Your task to perform on an android device: turn vacation reply on in the gmail app Image 0: 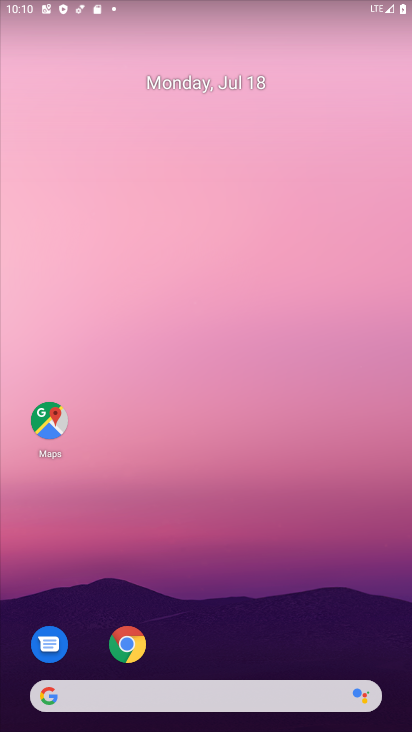
Step 0: drag from (347, 594) to (337, 140)
Your task to perform on an android device: turn vacation reply on in the gmail app Image 1: 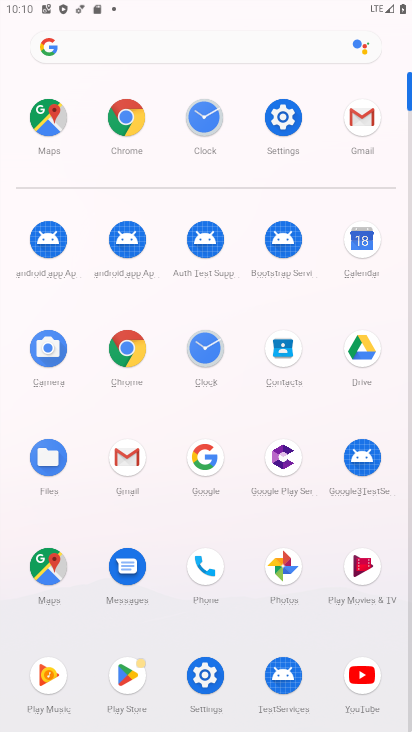
Step 1: click (127, 457)
Your task to perform on an android device: turn vacation reply on in the gmail app Image 2: 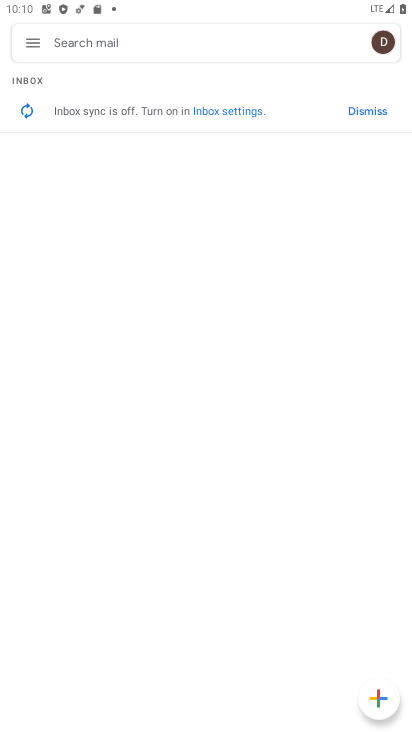
Step 2: click (33, 49)
Your task to perform on an android device: turn vacation reply on in the gmail app Image 3: 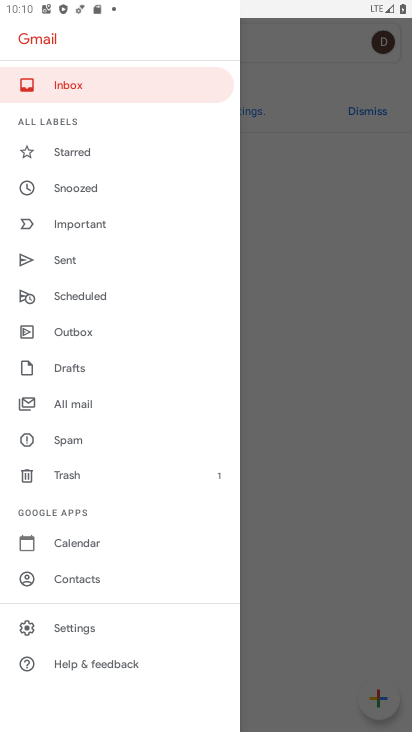
Step 3: click (167, 630)
Your task to perform on an android device: turn vacation reply on in the gmail app Image 4: 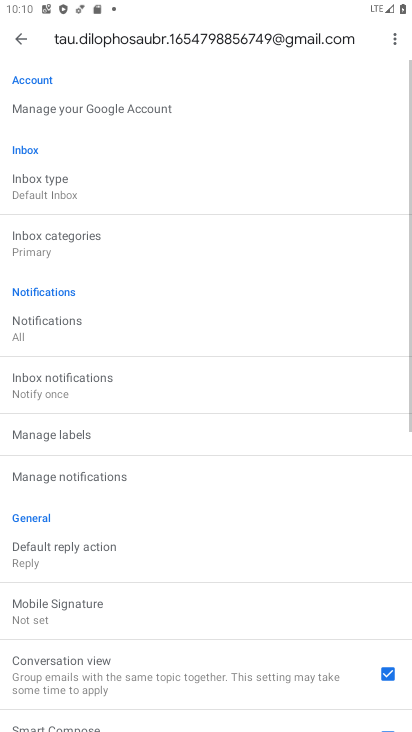
Step 4: drag from (235, 398) to (246, 348)
Your task to perform on an android device: turn vacation reply on in the gmail app Image 5: 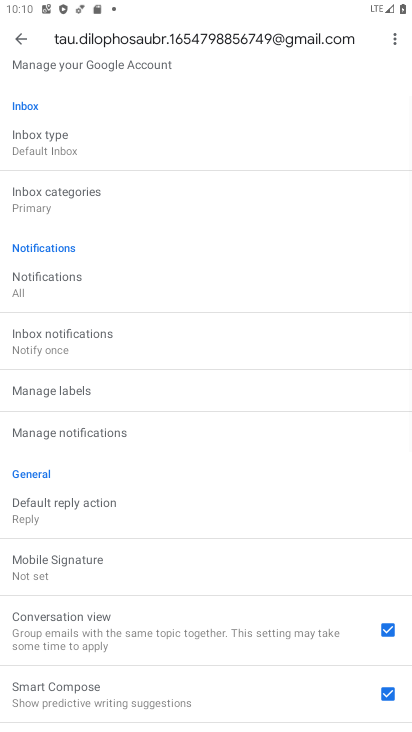
Step 5: drag from (252, 407) to (270, 276)
Your task to perform on an android device: turn vacation reply on in the gmail app Image 6: 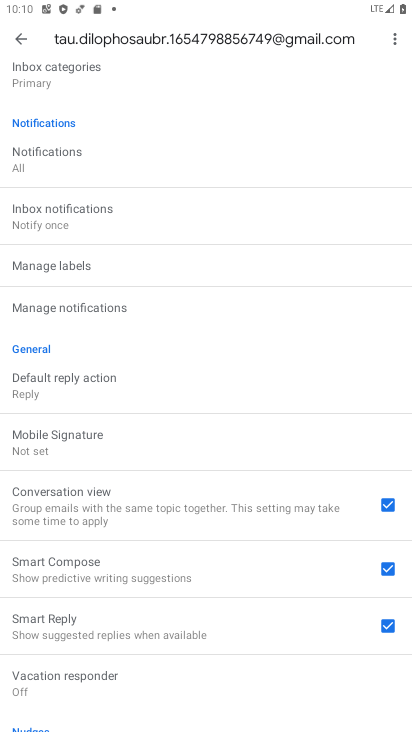
Step 6: drag from (279, 399) to (293, 352)
Your task to perform on an android device: turn vacation reply on in the gmail app Image 7: 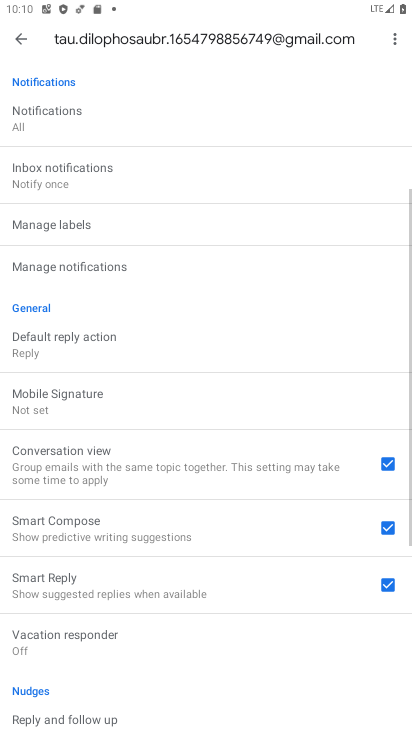
Step 7: drag from (288, 410) to (295, 330)
Your task to perform on an android device: turn vacation reply on in the gmail app Image 8: 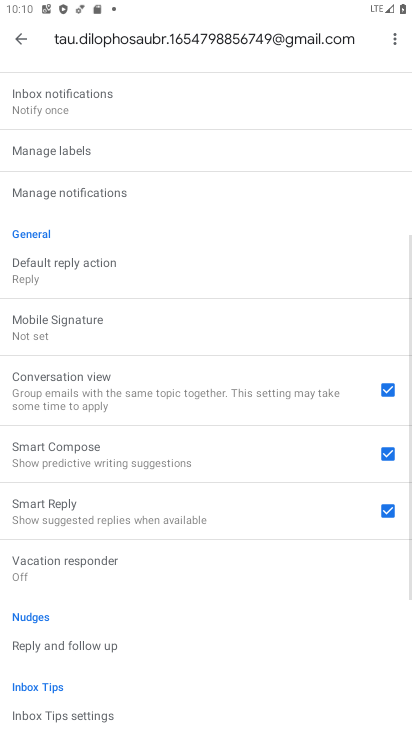
Step 8: drag from (290, 415) to (290, 347)
Your task to perform on an android device: turn vacation reply on in the gmail app Image 9: 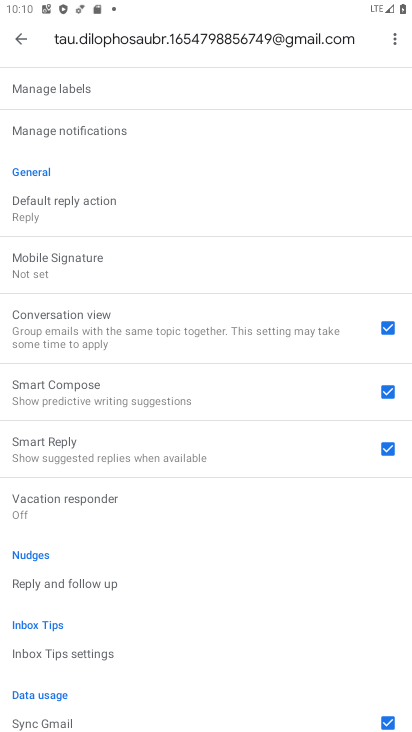
Step 9: drag from (288, 418) to (291, 343)
Your task to perform on an android device: turn vacation reply on in the gmail app Image 10: 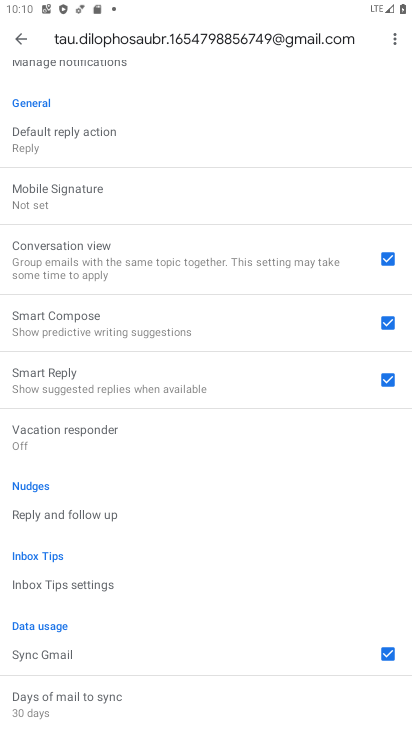
Step 10: drag from (307, 429) to (307, 371)
Your task to perform on an android device: turn vacation reply on in the gmail app Image 11: 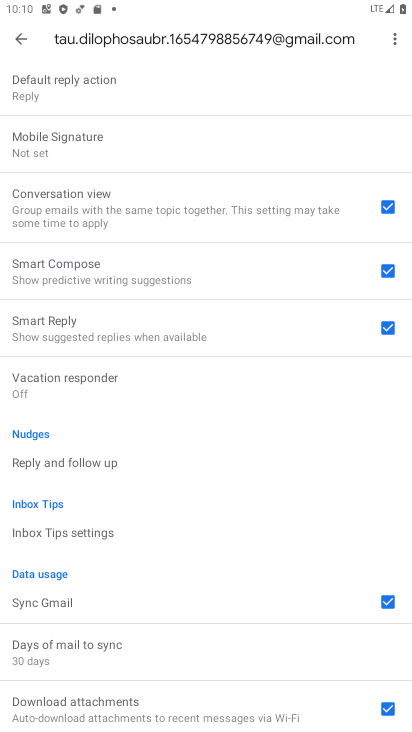
Step 11: click (189, 396)
Your task to perform on an android device: turn vacation reply on in the gmail app Image 12: 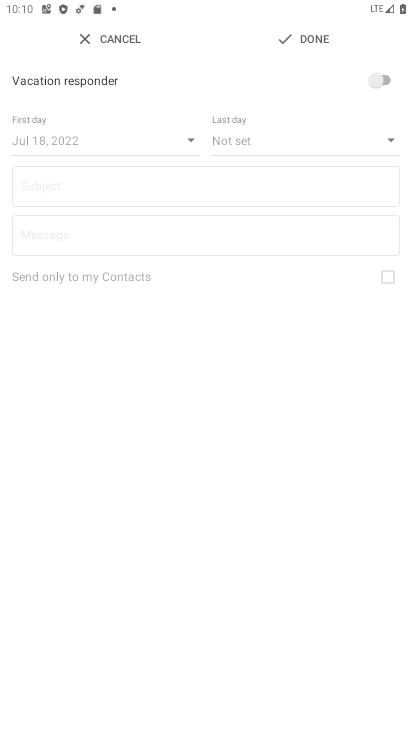
Step 12: click (372, 80)
Your task to perform on an android device: turn vacation reply on in the gmail app Image 13: 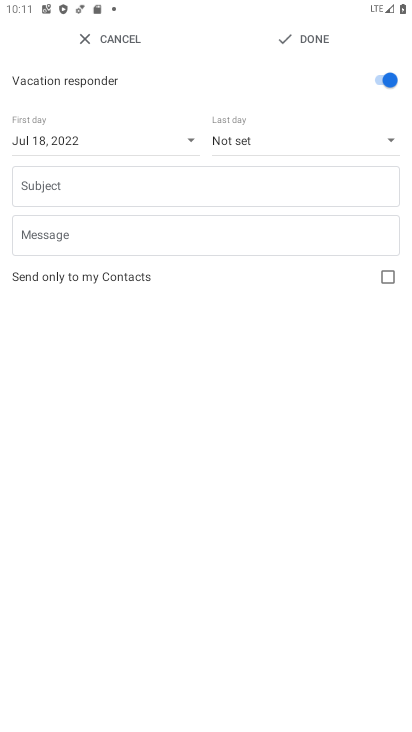
Step 13: task complete